Your task to perform on an android device: turn on wifi Image 0: 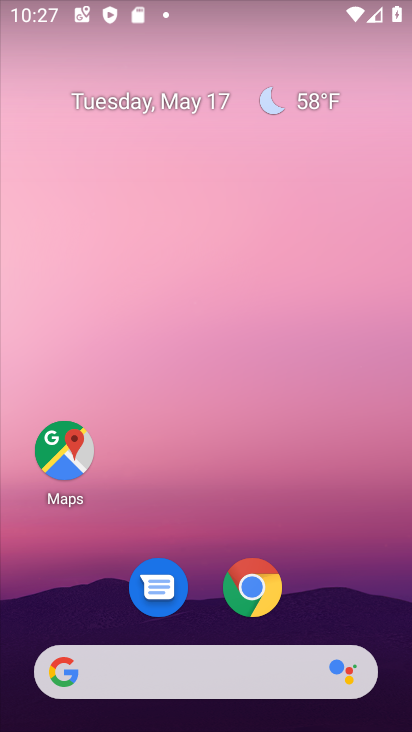
Step 0: drag from (329, 553) to (284, 112)
Your task to perform on an android device: turn on wifi Image 1: 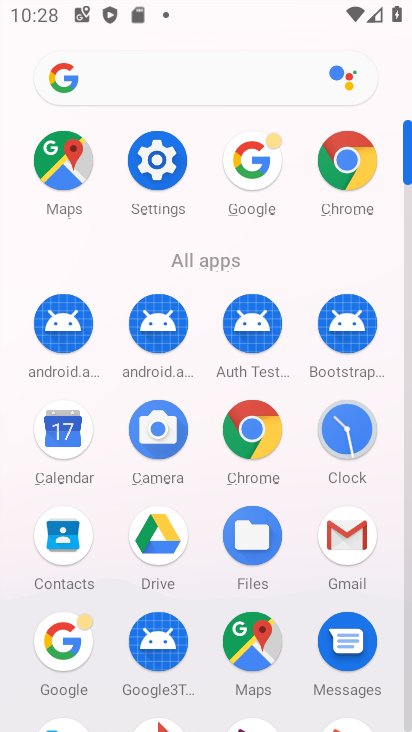
Step 1: click (157, 159)
Your task to perform on an android device: turn on wifi Image 2: 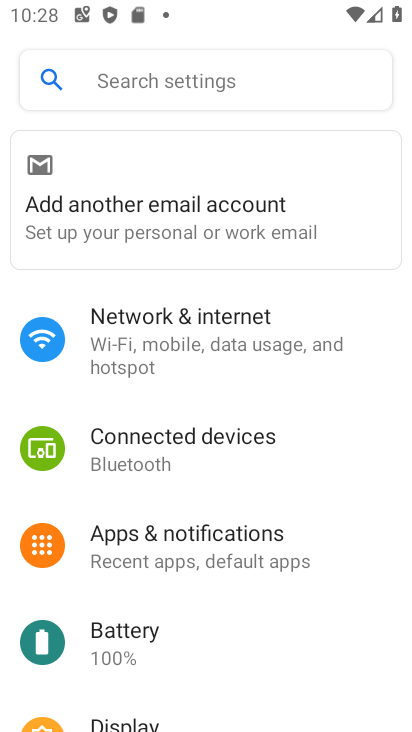
Step 2: drag from (179, 508) to (192, 383)
Your task to perform on an android device: turn on wifi Image 3: 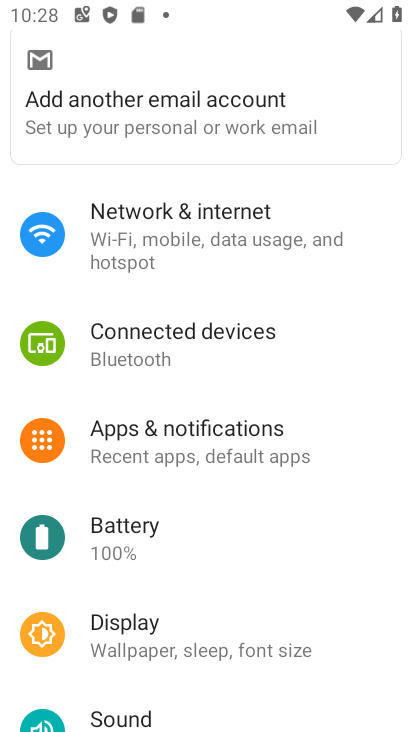
Step 3: click (147, 230)
Your task to perform on an android device: turn on wifi Image 4: 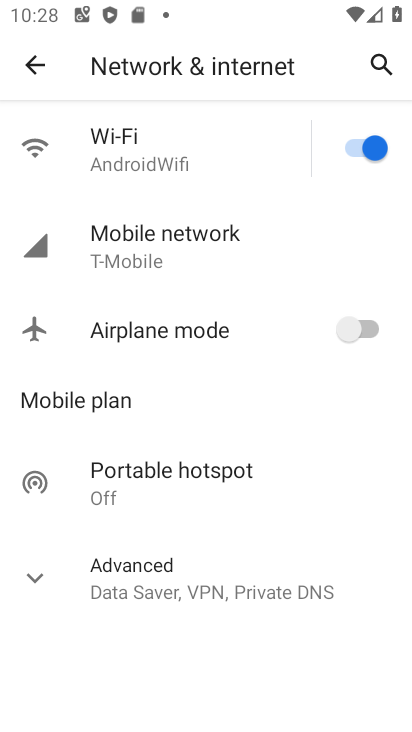
Step 4: task complete